Your task to perform on an android device: Turn on the flashlight Image 0: 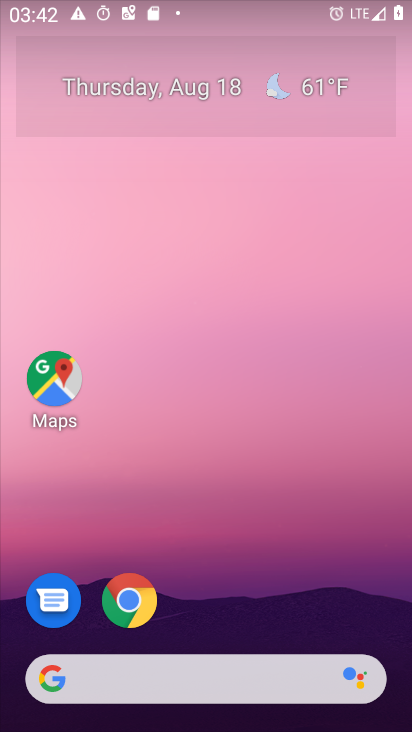
Step 0: drag from (209, 4) to (264, 619)
Your task to perform on an android device: Turn on the flashlight Image 1: 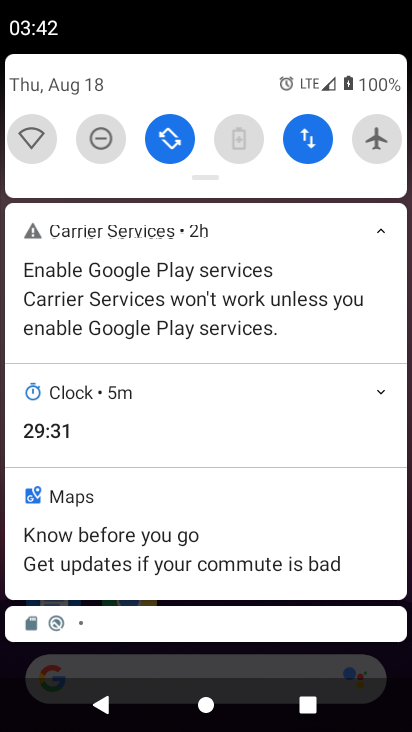
Step 1: task complete